Your task to perform on an android device: open the mobile data screen to see how much data has been used Image 0: 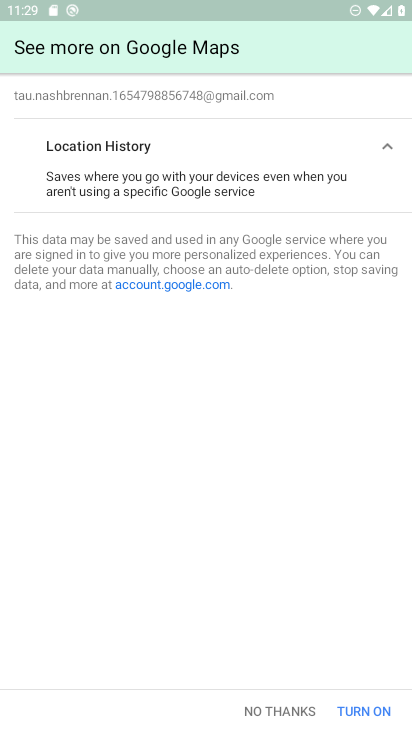
Step 0: press home button
Your task to perform on an android device: open the mobile data screen to see how much data has been used Image 1: 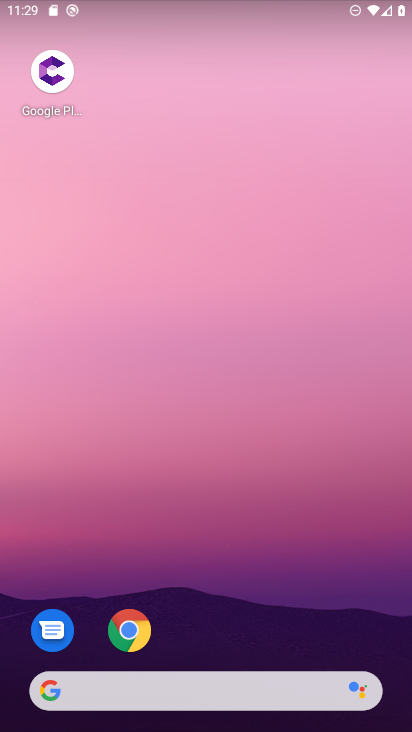
Step 1: drag from (314, 451) to (409, 16)
Your task to perform on an android device: open the mobile data screen to see how much data has been used Image 2: 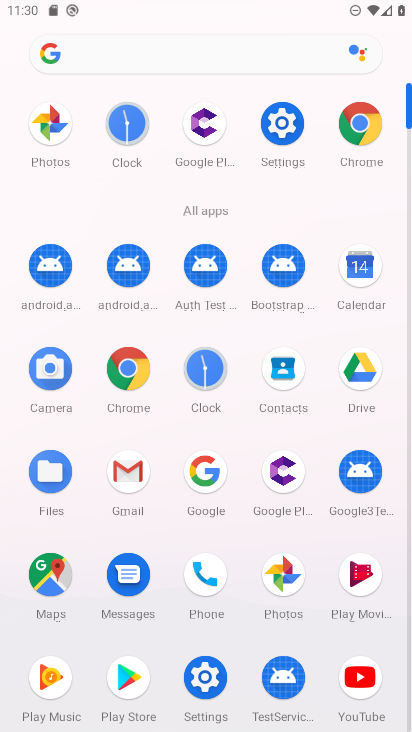
Step 2: click (280, 129)
Your task to perform on an android device: open the mobile data screen to see how much data has been used Image 3: 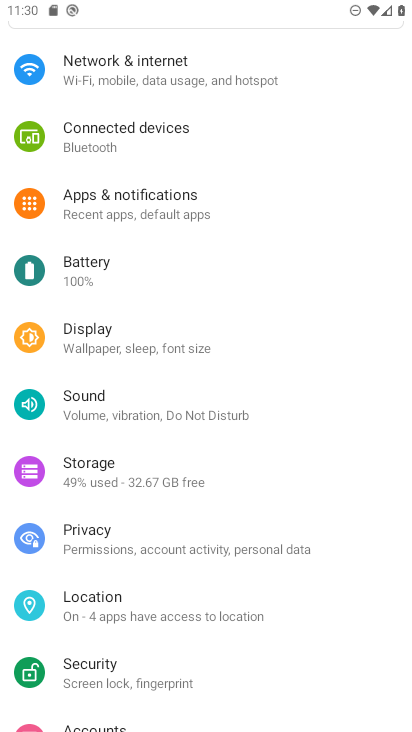
Step 3: drag from (136, 204) to (223, 551)
Your task to perform on an android device: open the mobile data screen to see how much data has been used Image 4: 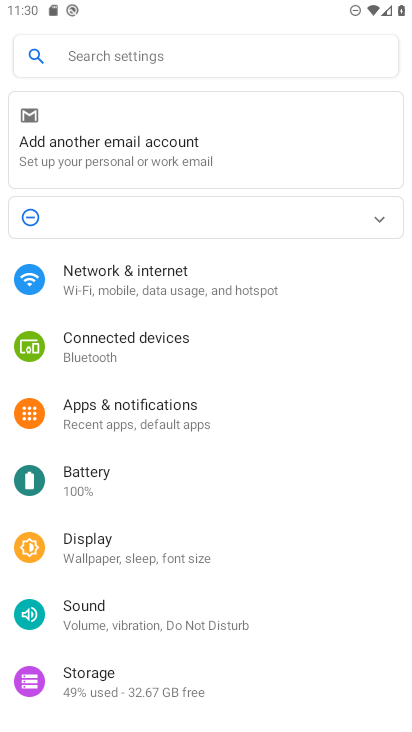
Step 4: click (153, 290)
Your task to perform on an android device: open the mobile data screen to see how much data has been used Image 5: 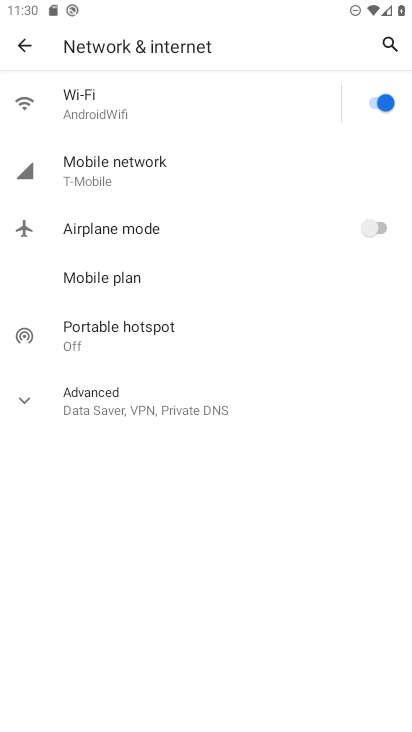
Step 5: click (151, 175)
Your task to perform on an android device: open the mobile data screen to see how much data has been used Image 6: 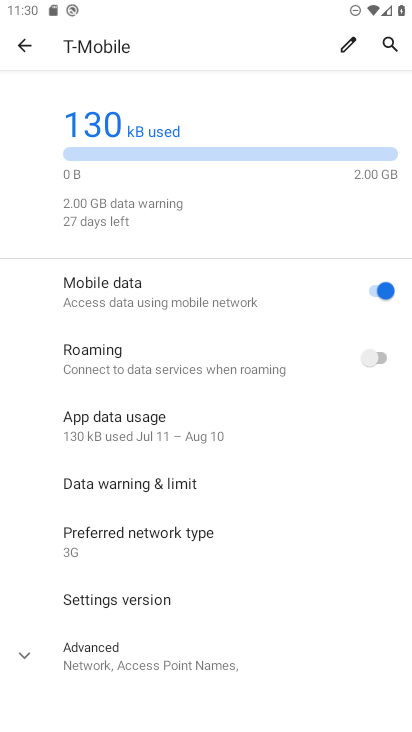
Step 6: task complete